Your task to perform on an android device: Open Chrome and go to the settings page Image 0: 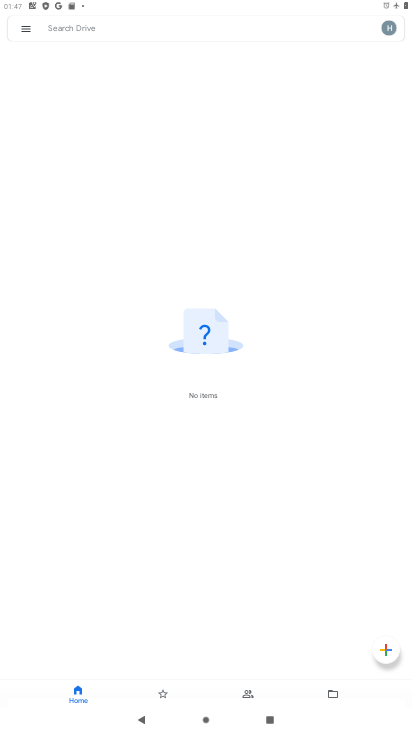
Step 0: press home button
Your task to perform on an android device: Open Chrome and go to the settings page Image 1: 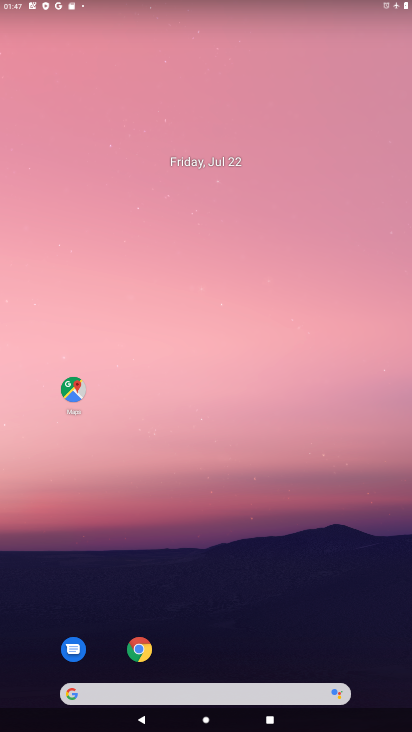
Step 1: drag from (308, 658) to (208, 32)
Your task to perform on an android device: Open Chrome and go to the settings page Image 2: 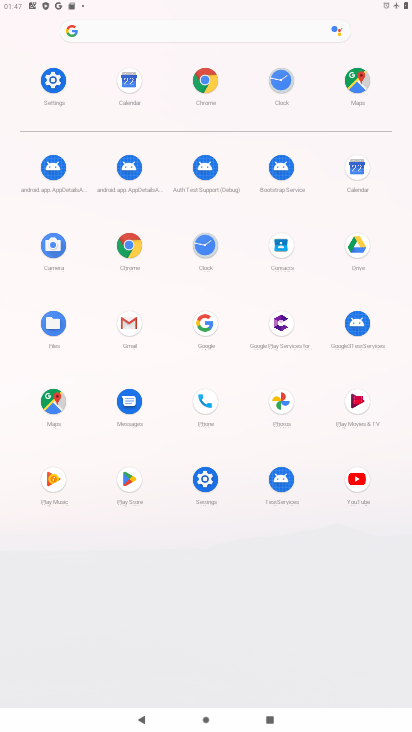
Step 2: click (124, 243)
Your task to perform on an android device: Open Chrome and go to the settings page Image 3: 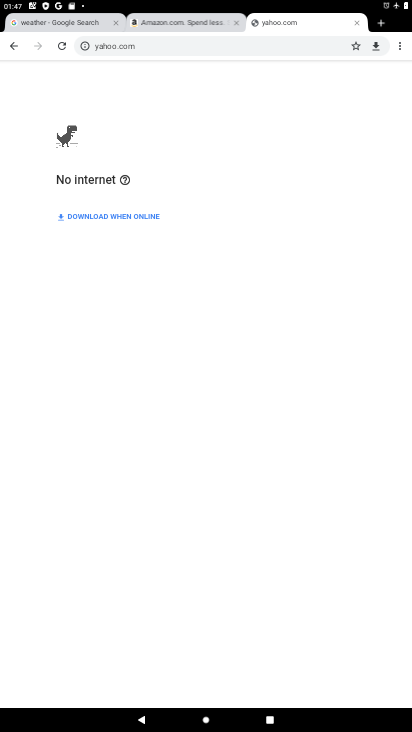
Step 3: task complete